Your task to perform on an android device: Toggle the flashlight Image 0: 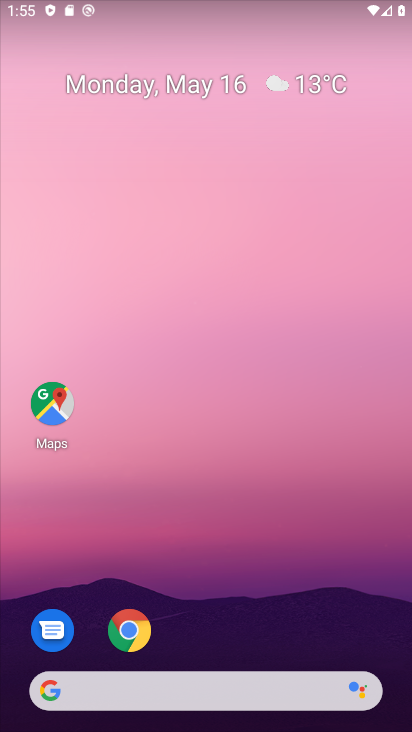
Step 0: drag from (239, 98) to (325, 20)
Your task to perform on an android device: Toggle the flashlight Image 1: 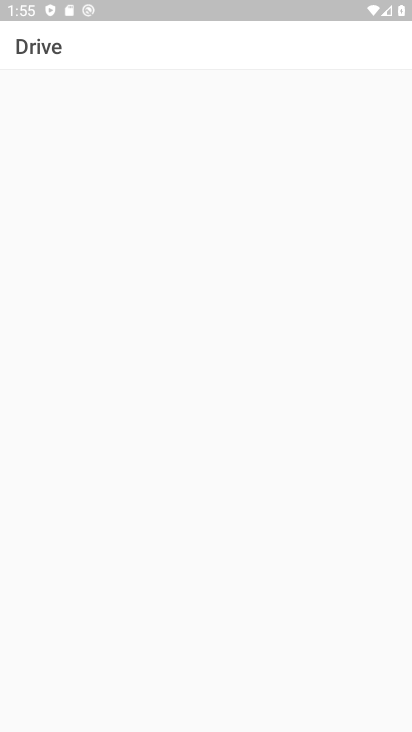
Step 1: press home button
Your task to perform on an android device: Toggle the flashlight Image 2: 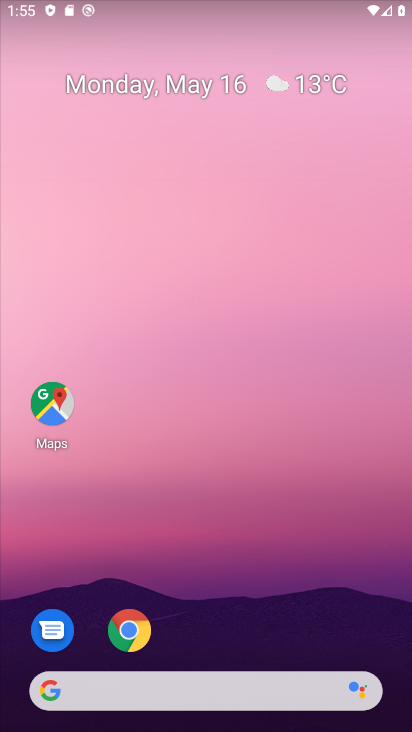
Step 2: drag from (257, 458) to (269, 106)
Your task to perform on an android device: Toggle the flashlight Image 3: 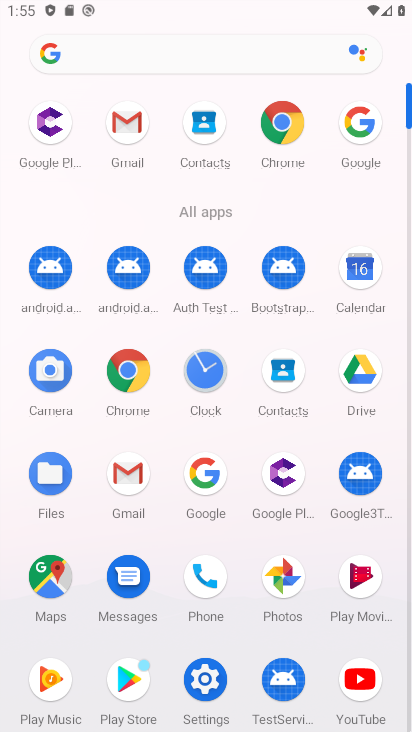
Step 3: click (210, 678)
Your task to perform on an android device: Toggle the flashlight Image 4: 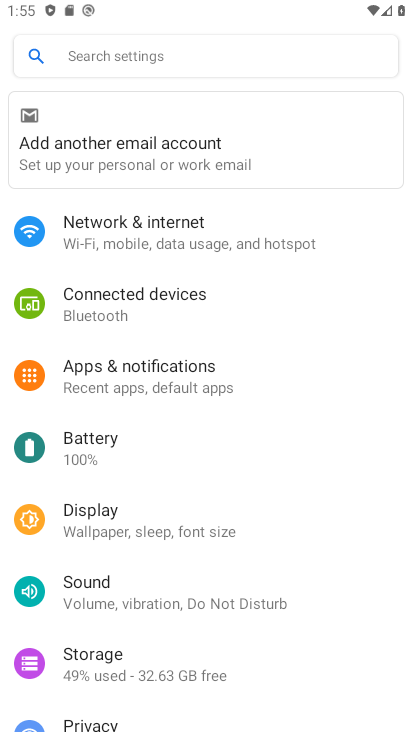
Step 4: click (168, 56)
Your task to perform on an android device: Toggle the flashlight Image 5: 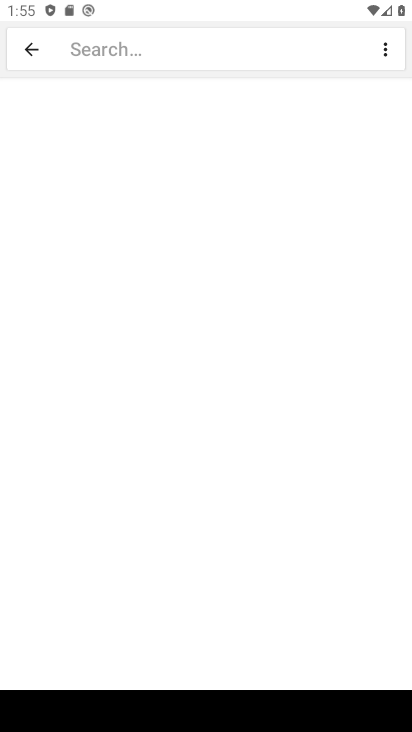
Step 5: type "flashlight"
Your task to perform on an android device: Toggle the flashlight Image 6: 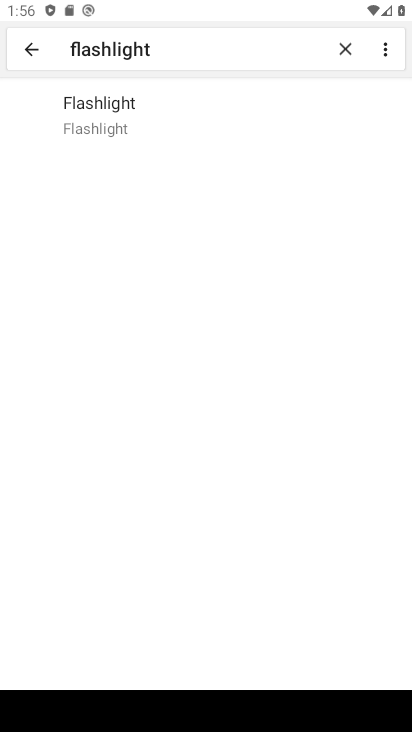
Step 6: click (142, 113)
Your task to perform on an android device: Toggle the flashlight Image 7: 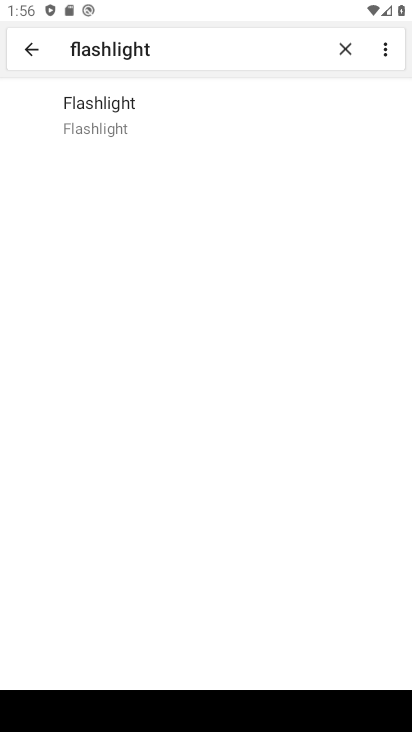
Step 7: click (132, 116)
Your task to perform on an android device: Toggle the flashlight Image 8: 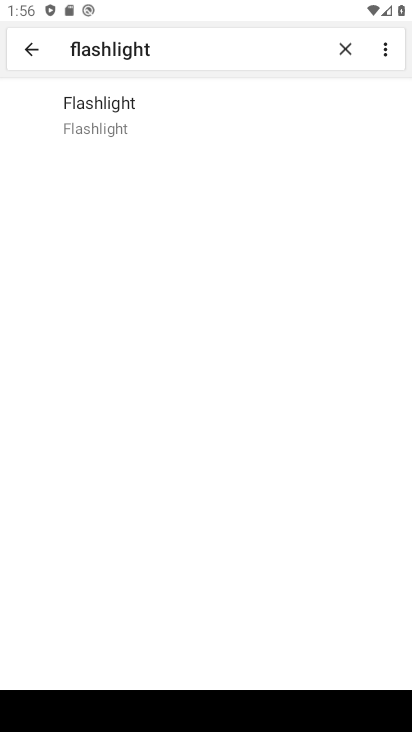
Step 8: task complete